Your task to perform on an android device: Go to location settings Image 0: 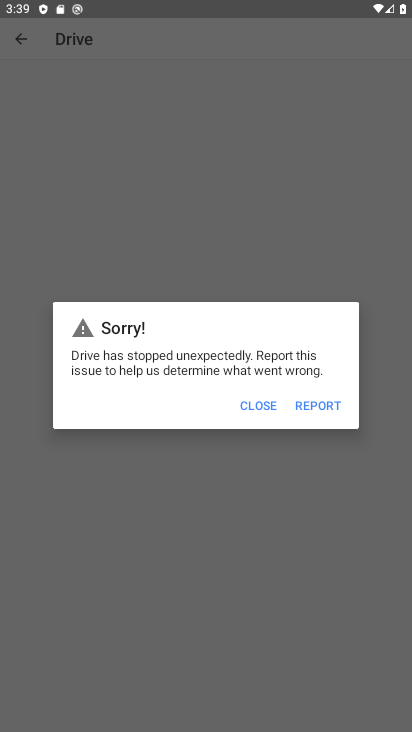
Step 0: press home button
Your task to perform on an android device: Go to location settings Image 1: 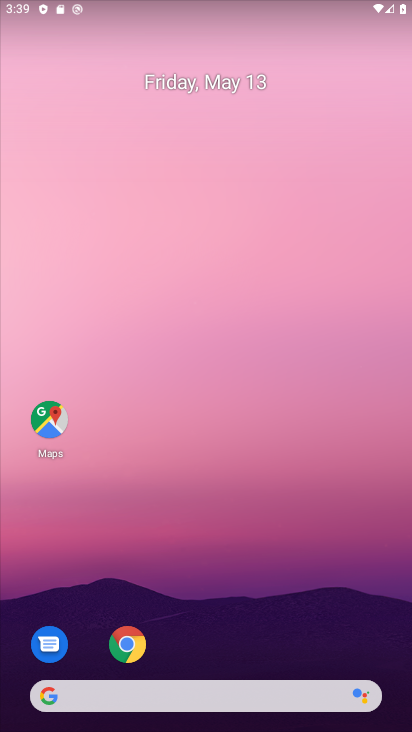
Step 1: drag from (312, 612) to (240, 153)
Your task to perform on an android device: Go to location settings Image 2: 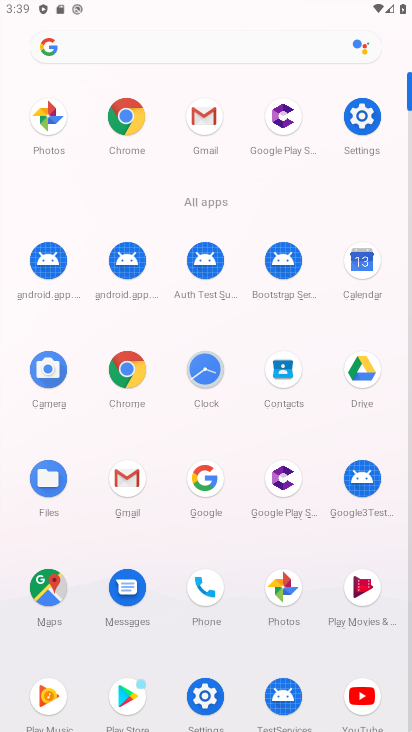
Step 2: click (204, 693)
Your task to perform on an android device: Go to location settings Image 3: 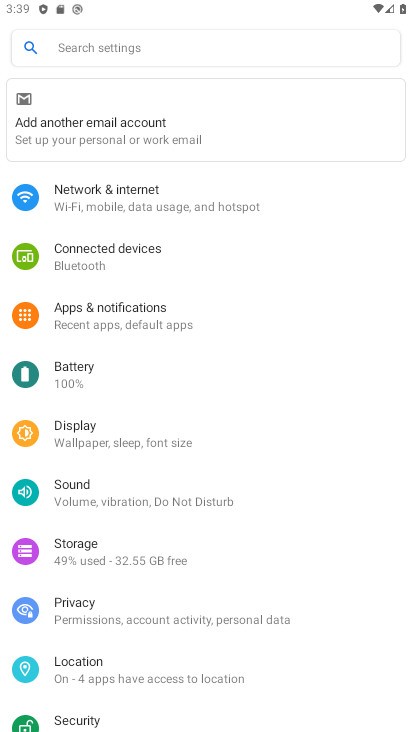
Step 3: click (112, 659)
Your task to perform on an android device: Go to location settings Image 4: 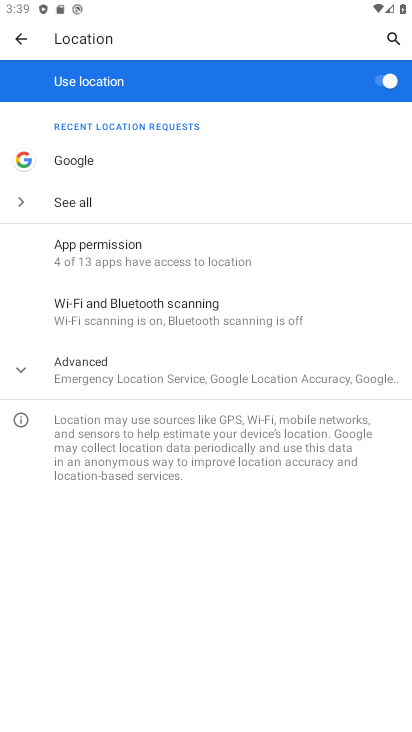
Step 4: task complete